Your task to perform on an android device: empty trash in google photos Image 0: 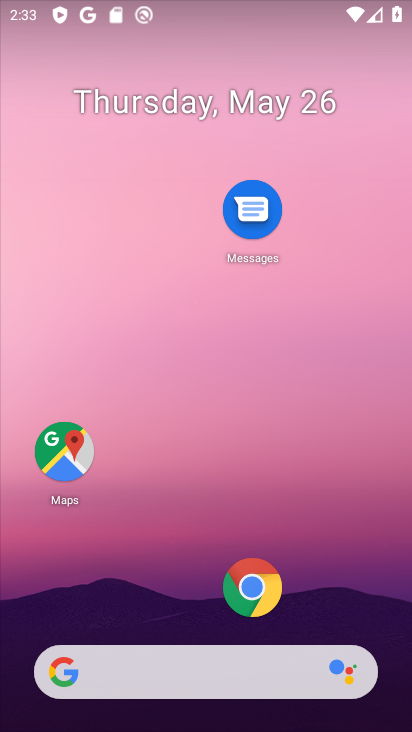
Step 0: drag from (182, 614) to (198, 325)
Your task to perform on an android device: empty trash in google photos Image 1: 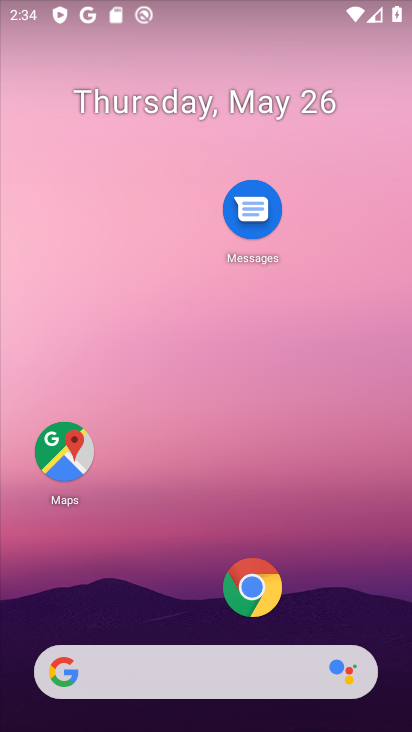
Step 1: drag from (164, 592) to (235, 82)
Your task to perform on an android device: empty trash in google photos Image 2: 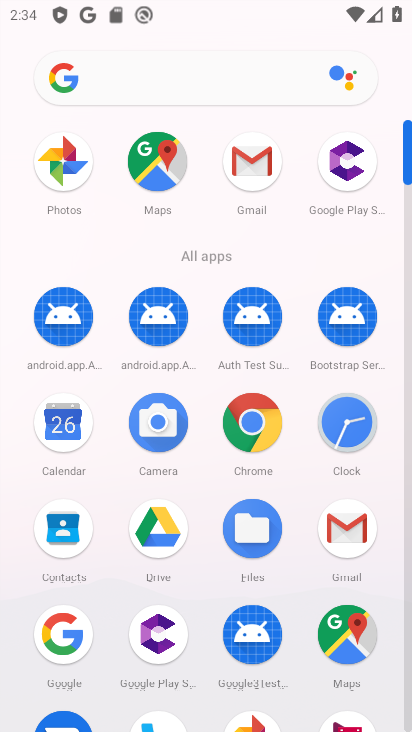
Step 2: click (74, 170)
Your task to perform on an android device: empty trash in google photos Image 3: 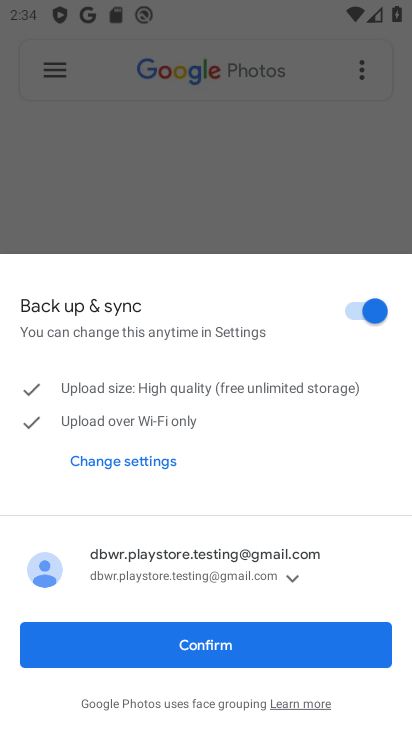
Step 3: click (223, 653)
Your task to perform on an android device: empty trash in google photos Image 4: 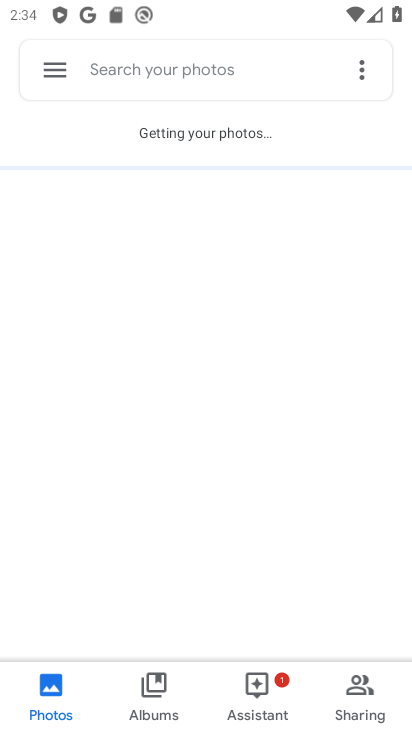
Step 4: click (50, 68)
Your task to perform on an android device: empty trash in google photos Image 5: 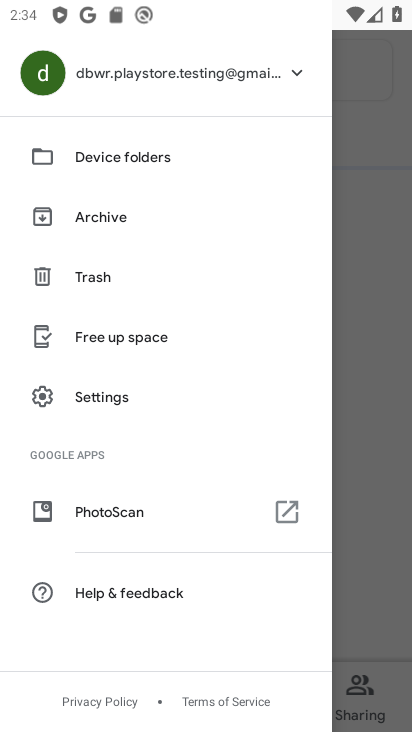
Step 5: click (97, 285)
Your task to perform on an android device: empty trash in google photos Image 6: 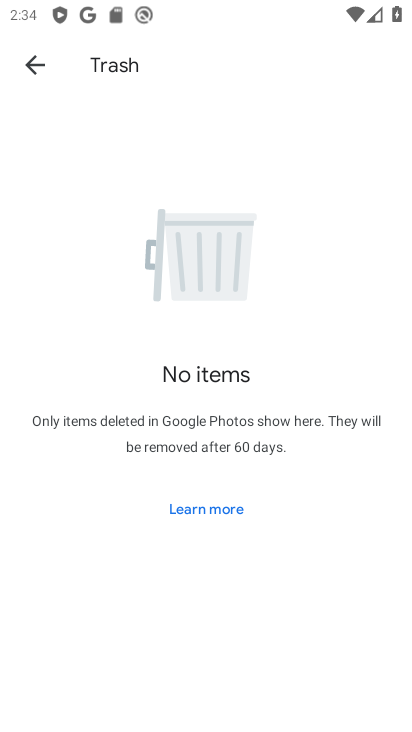
Step 6: task complete